Your task to perform on an android device: open device folders in google photos Image 0: 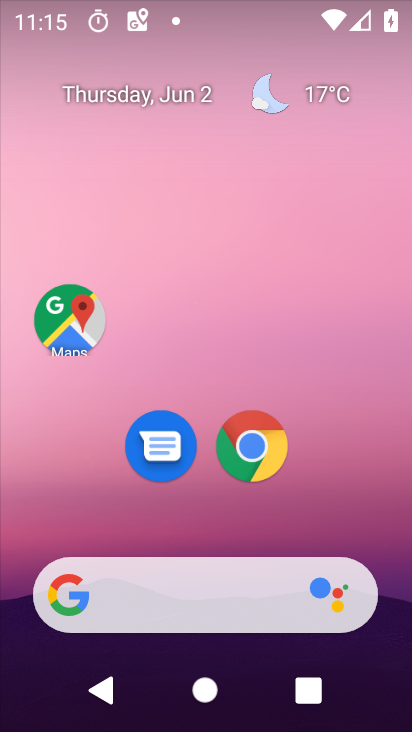
Step 0: drag from (369, 539) to (374, 228)
Your task to perform on an android device: open device folders in google photos Image 1: 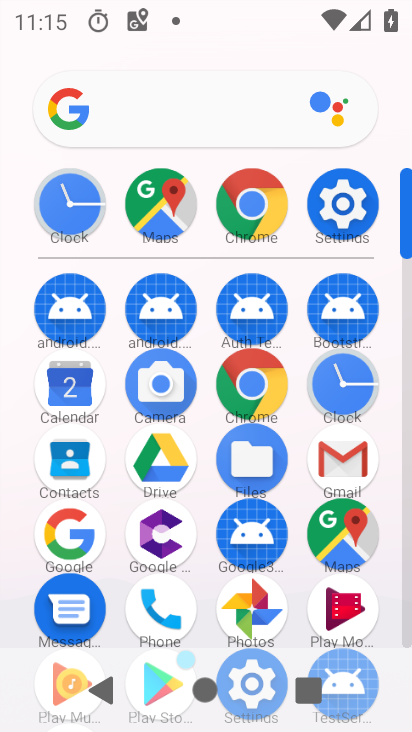
Step 1: click (256, 607)
Your task to perform on an android device: open device folders in google photos Image 2: 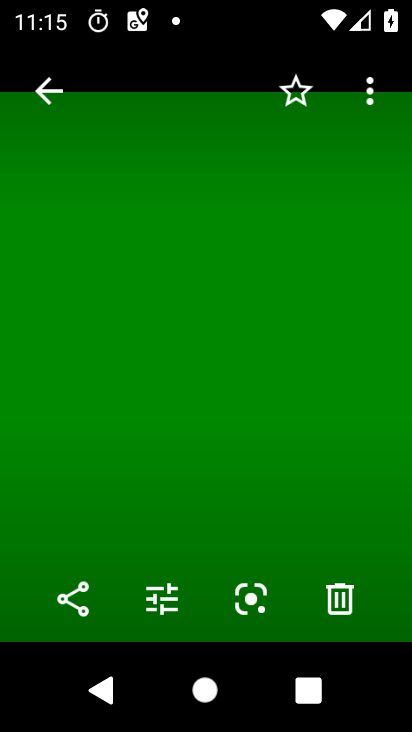
Step 2: press back button
Your task to perform on an android device: open device folders in google photos Image 3: 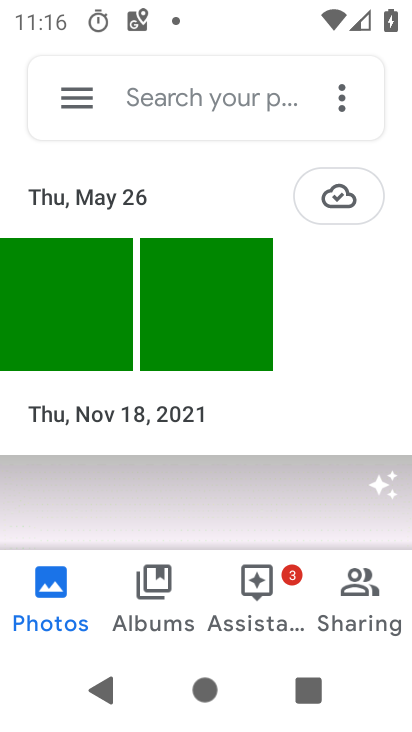
Step 3: click (78, 99)
Your task to perform on an android device: open device folders in google photos Image 4: 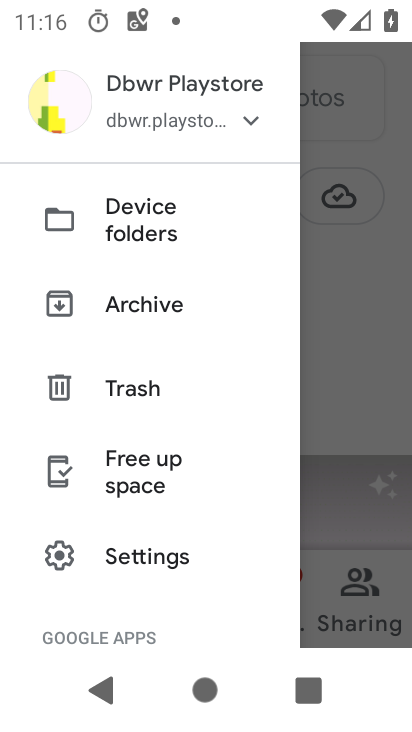
Step 4: click (173, 229)
Your task to perform on an android device: open device folders in google photos Image 5: 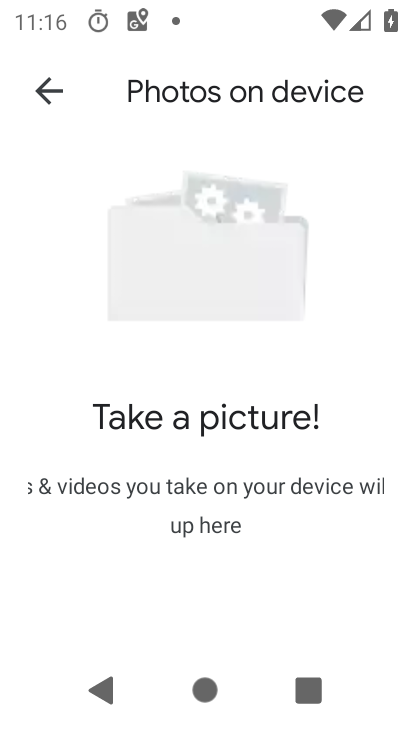
Step 5: task complete